Your task to perform on an android device: Open Google Chrome and open the bookmarks view Image 0: 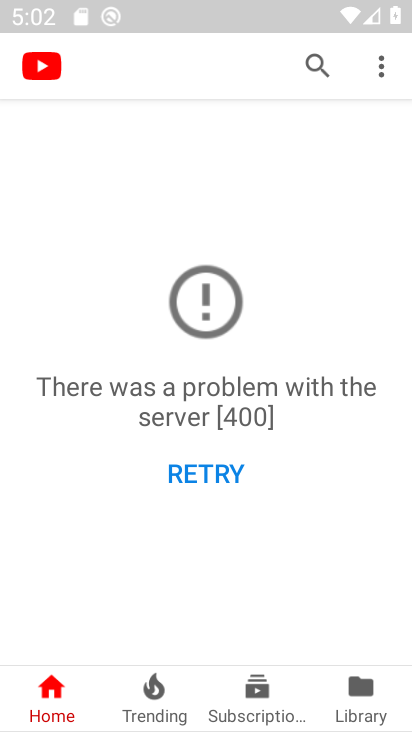
Step 0: press home button
Your task to perform on an android device: Open Google Chrome and open the bookmarks view Image 1: 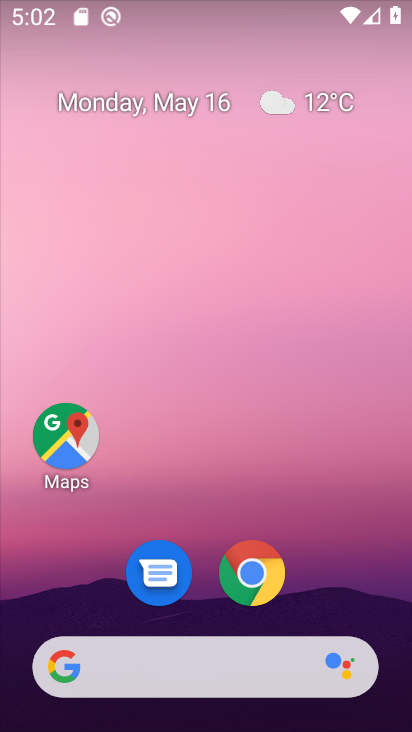
Step 1: click (255, 569)
Your task to perform on an android device: Open Google Chrome and open the bookmarks view Image 2: 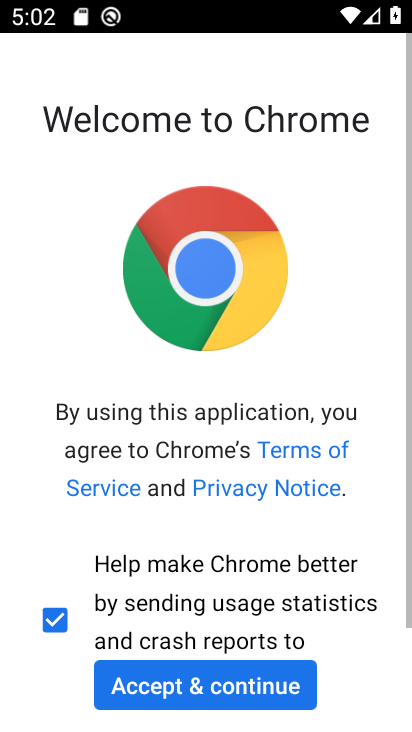
Step 2: click (194, 695)
Your task to perform on an android device: Open Google Chrome and open the bookmarks view Image 3: 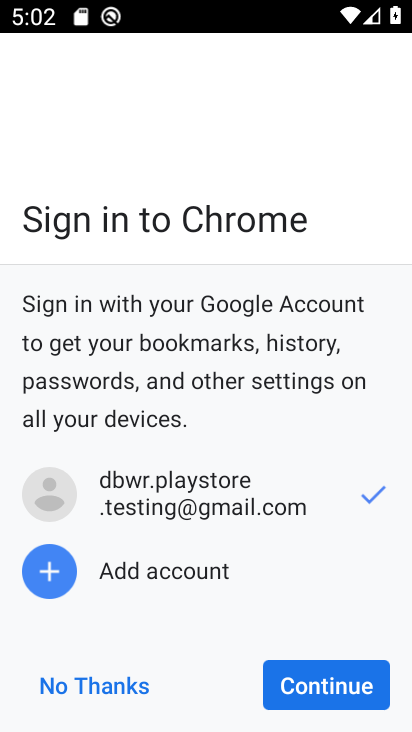
Step 3: click (354, 699)
Your task to perform on an android device: Open Google Chrome and open the bookmarks view Image 4: 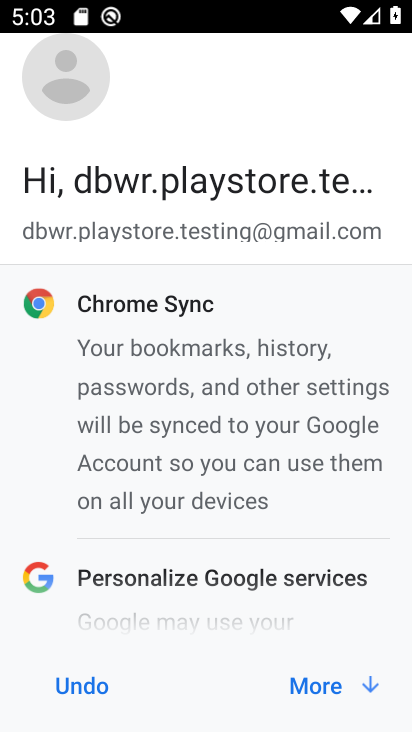
Step 4: click (335, 693)
Your task to perform on an android device: Open Google Chrome and open the bookmarks view Image 5: 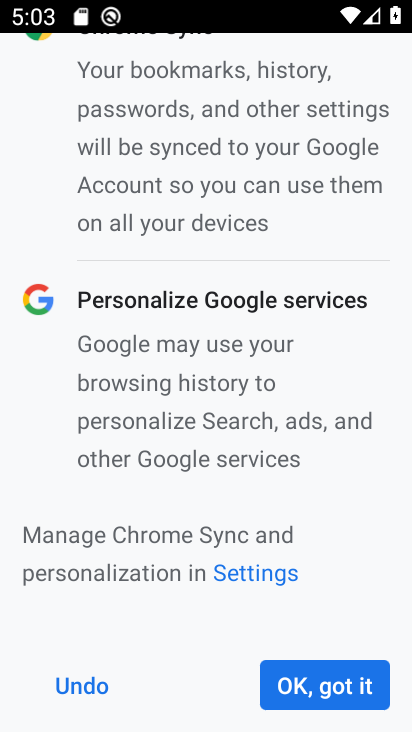
Step 5: click (345, 685)
Your task to perform on an android device: Open Google Chrome and open the bookmarks view Image 6: 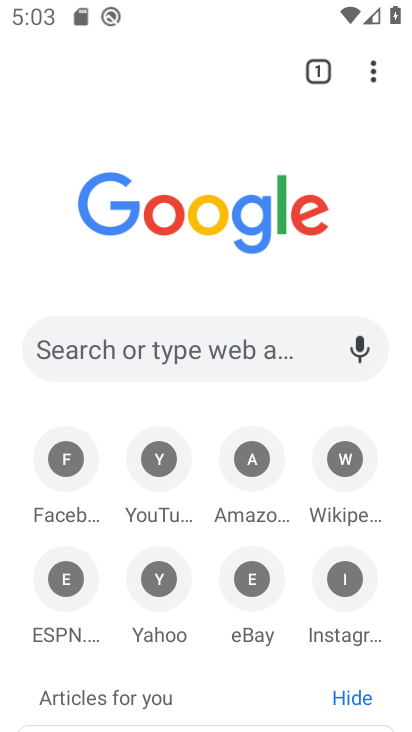
Step 6: task complete